Your task to perform on an android device: Go to Android settings Image 0: 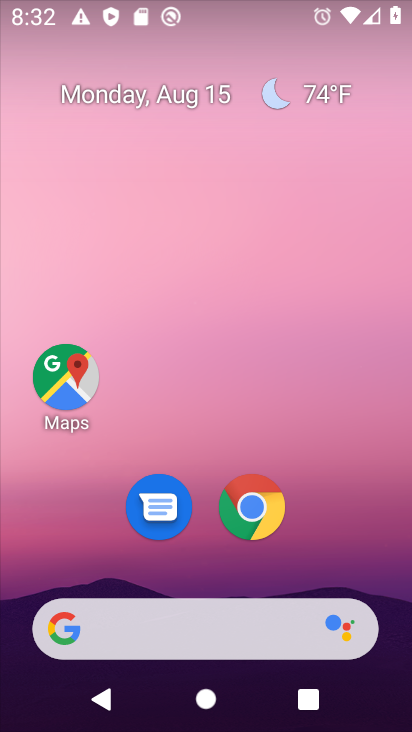
Step 0: drag from (276, 611) to (309, 0)
Your task to perform on an android device: Go to Android settings Image 1: 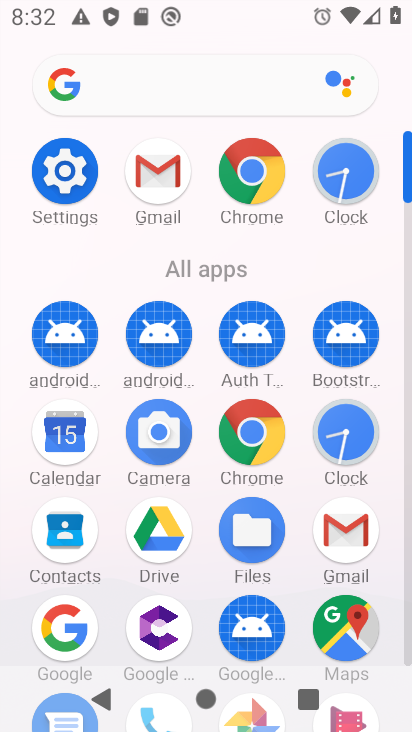
Step 1: click (54, 178)
Your task to perform on an android device: Go to Android settings Image 2: 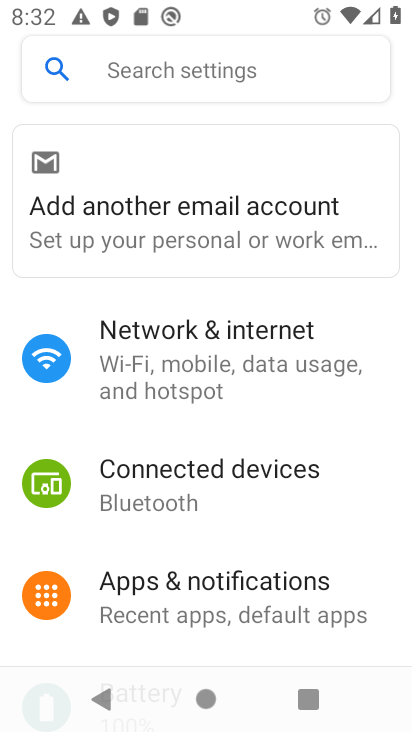
Step 2: task complete